Your task to perform on an android device: turn smart compose on in the gmail app Image 0: 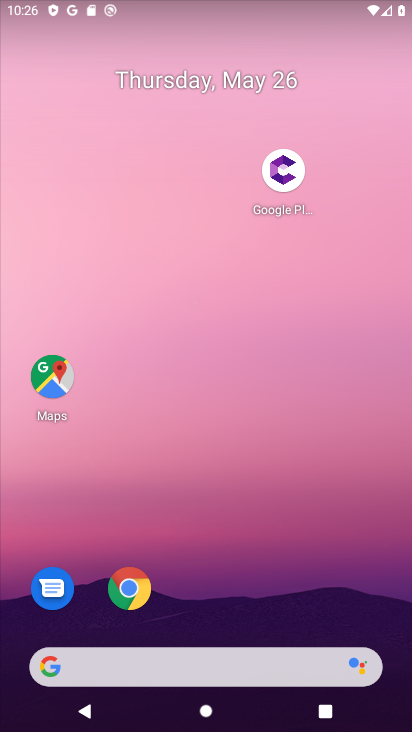
Step 0: drag from (266, 684) to (135, 193)
Your task to perform on an android device: turn smart compose on in the gmail app Image 1: 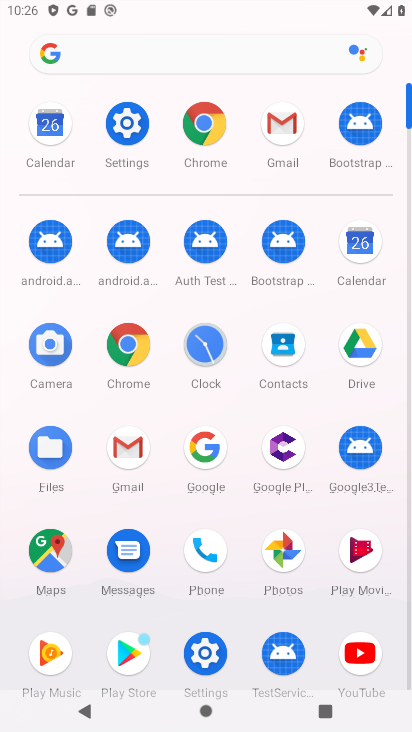
Step 1: click (136, 454)
Your task to perform on an android device: turn smart compose on in the gmail app Image 2: 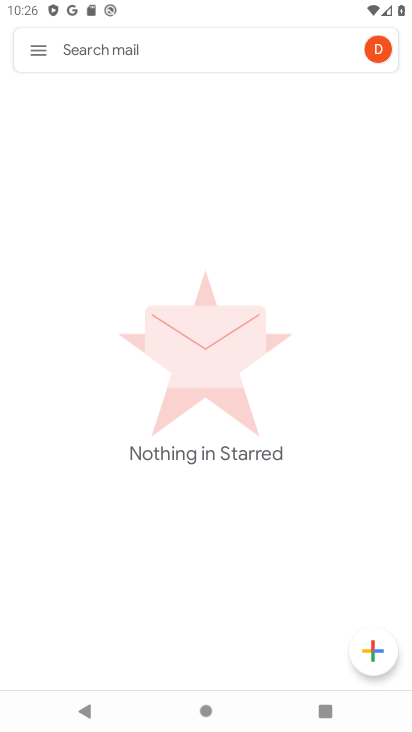
Step 2: click (41, 49)
Your task to perform on an android device: turn smart compose on in the gmail app Image 3: 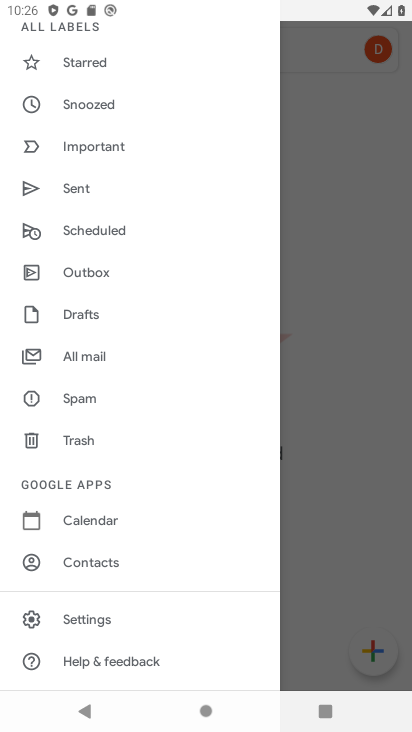
Step 3: click (79, 614)
Your task to perform on an android device: turn smart compose on in the gmail app Image 4: 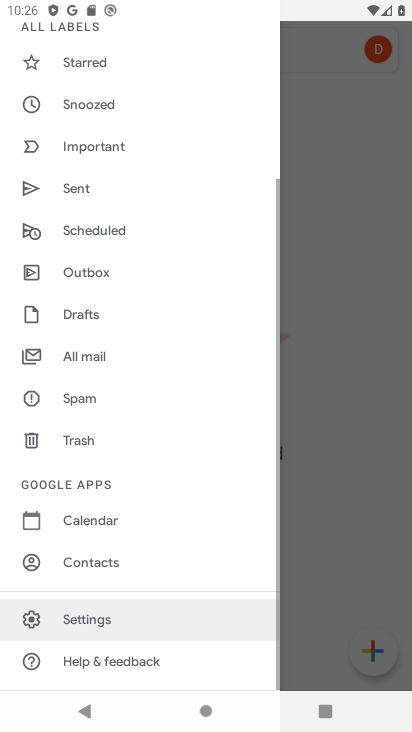
Step 4: click (83, 611)
Your task to perform on an android device: turn smart compose on in the gmail app Image 5: 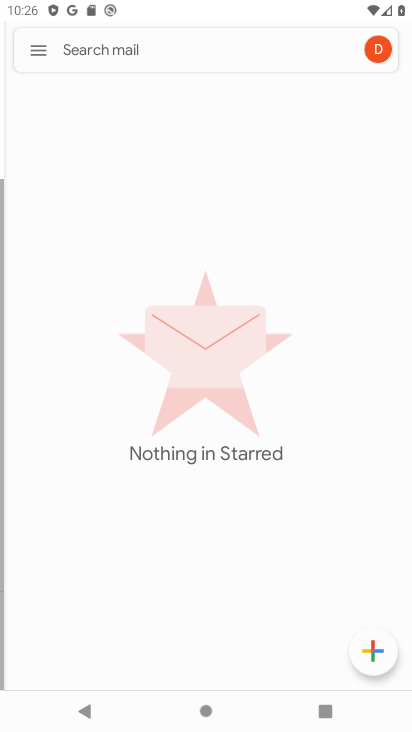
Step 5: click (85, 611)
Your task to perform on an android device: turn smart compose on in the gmail app Image 6: 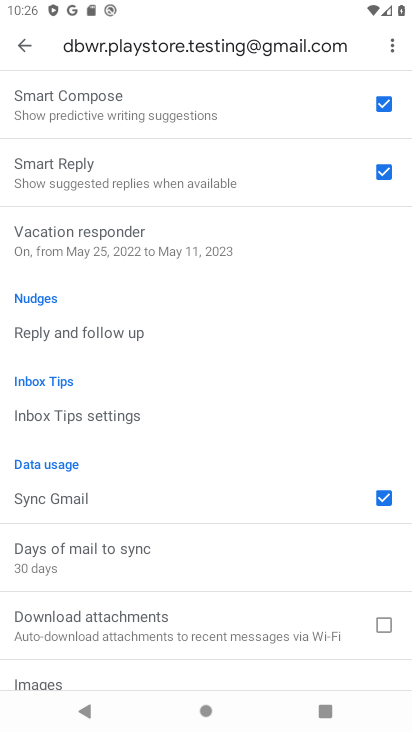
Step 6: task complete